Your task to perform on an android device: Go to CNN.com Image 0: 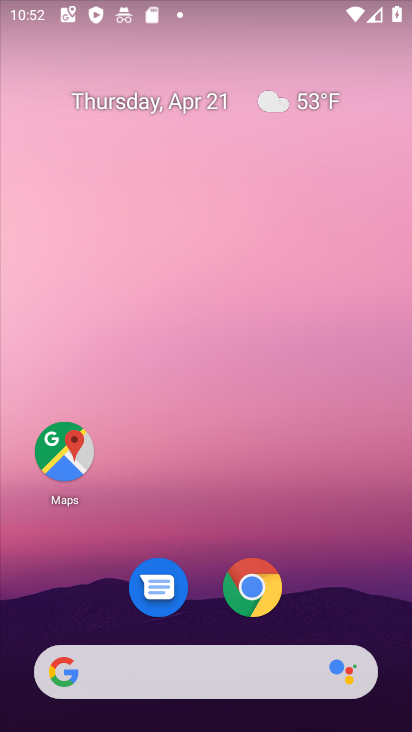
Step 0: click (243, 612)
Your task to perform on an android device: Go to CNN.com Image 1: 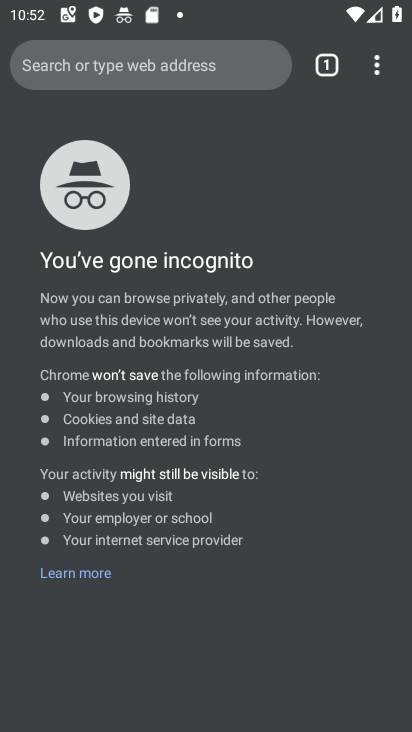
Step 1: click (144, 80)
Your task to perform on an android device: Go to CNN.com Image 2: 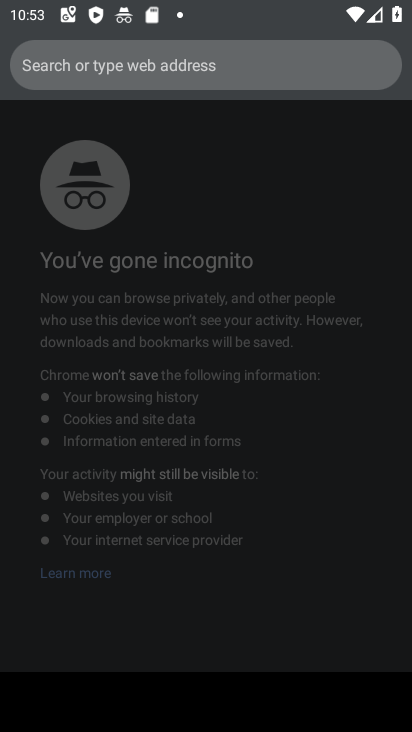
Step 2: type "cnn.com"
Your task to perform on an android device: Go to CNN.com Image 3: 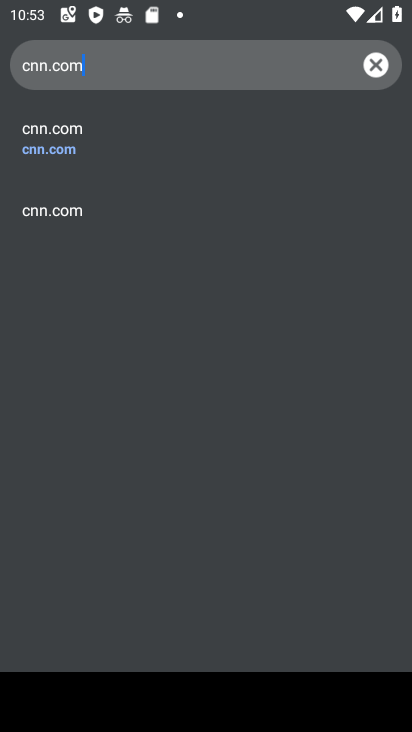
Step 3: click (87, 137)
Your task to perform on an android device: Go to CNN.com Image 4: 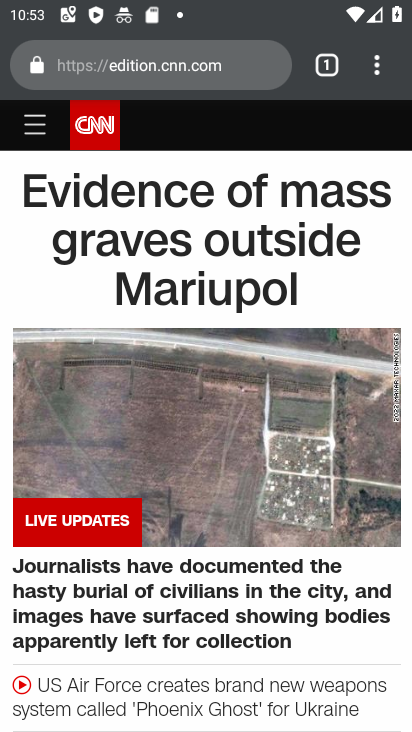
Step 4: task complete